Your task to perform on an android device: find snoozed emails in the gmail app Image 0: 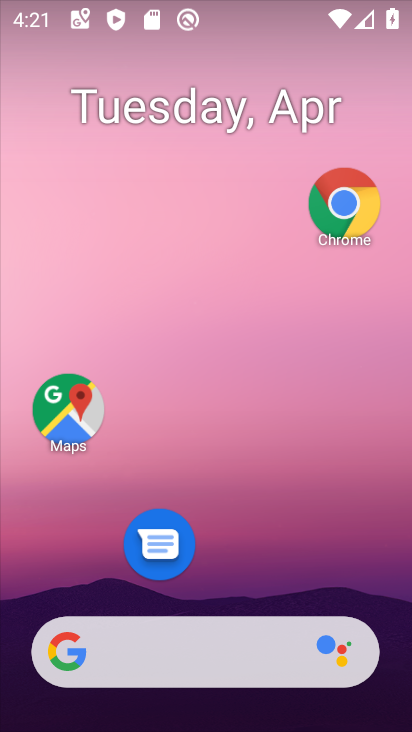
Step 0: drag from (252, 592) to (325, 12)
Your task to perform on an android device: find snoozed emails in the gmail app Image 1: 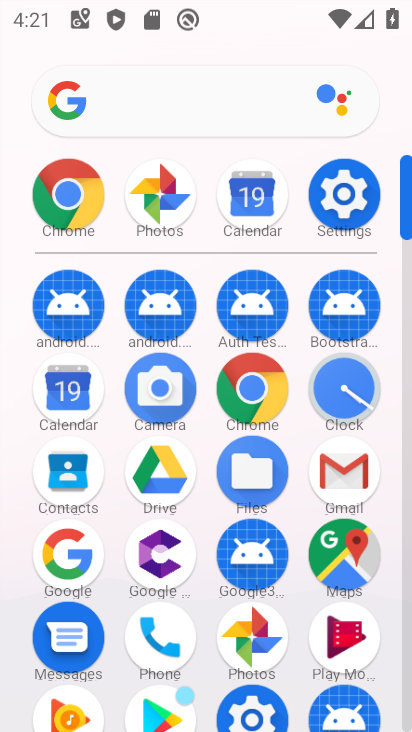
Step 1: click (349, 469)
Your task to perform on an android device: find snoozed emails in the gmail app Image 2: 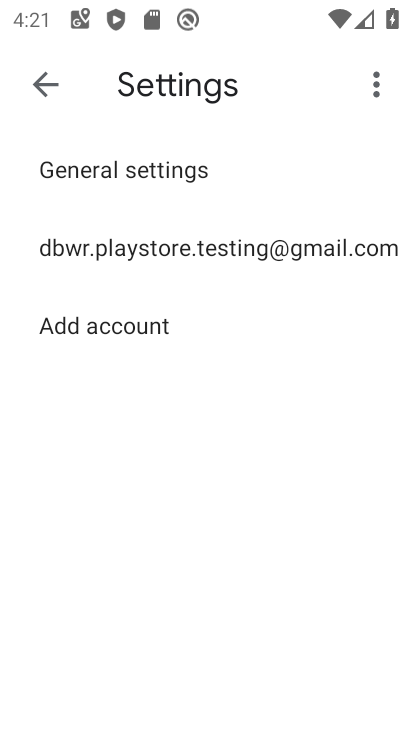
Step 2: click (38, 82)
Your task to perform on an android device: find snoozed emails in the gmail app Image 3: 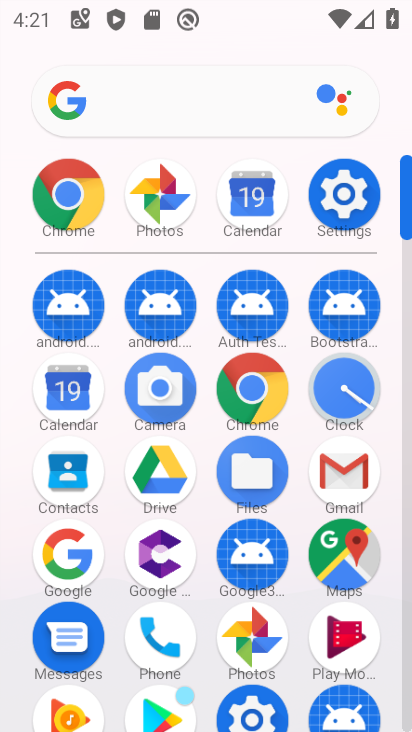
Step 3: click (355, 471)
Your task to perform on an android device: find snoozed emails in the gmail app Image 4: 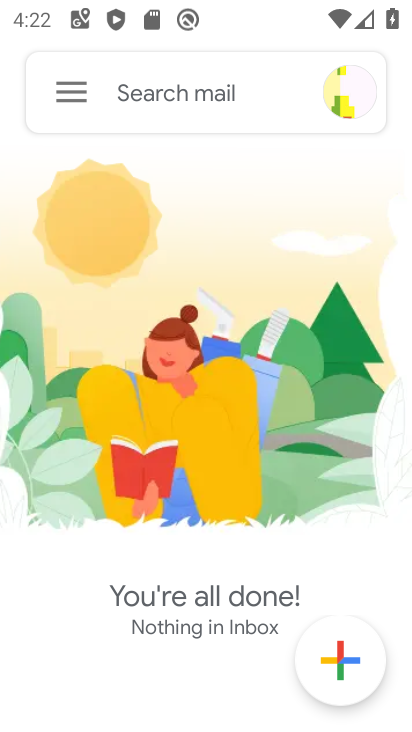
Step 4: click (75, 80)
Your task to perform on an android device: find snoozed emails in the gmail app Image 5: 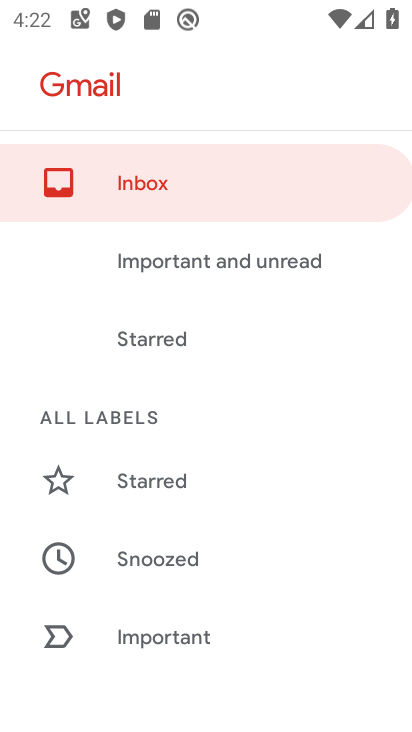
Step 5: click (169, 559)
Your task to perform on an android device: find snoozed emails in the gmail app Image 6: 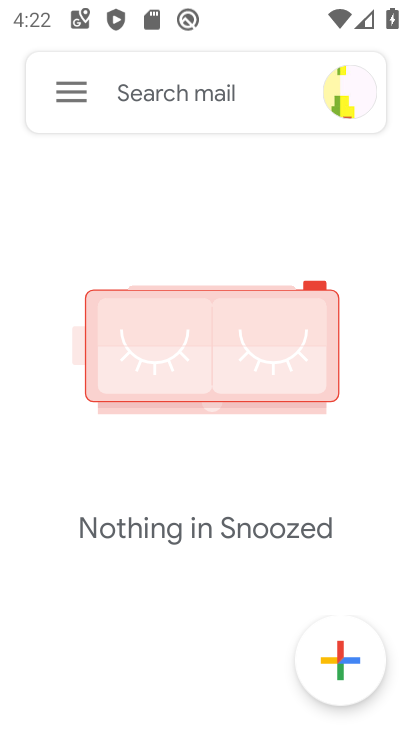
Step 6: task complete